Your task to perform on an android device: Check the weather Image 0: 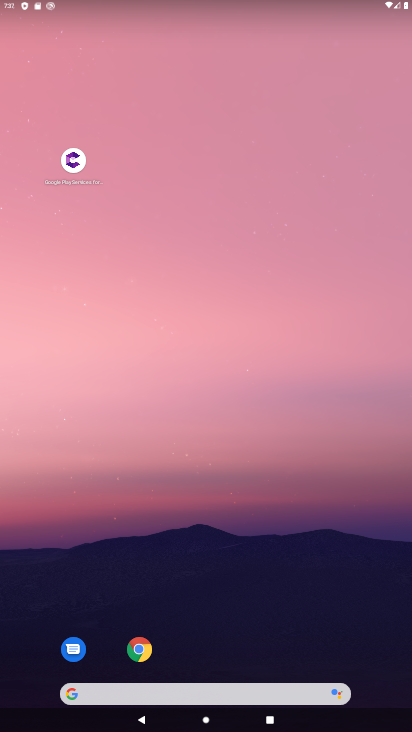
Step 0: click (194, 688)
Your task to perform on an android device: Check the weather Image 1: 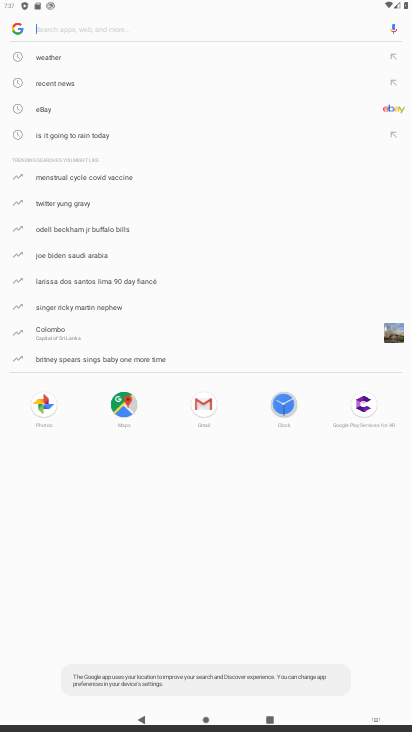
Step 1: click (132, 23)
Your task to perform on an android device: Check the weather Image 2: 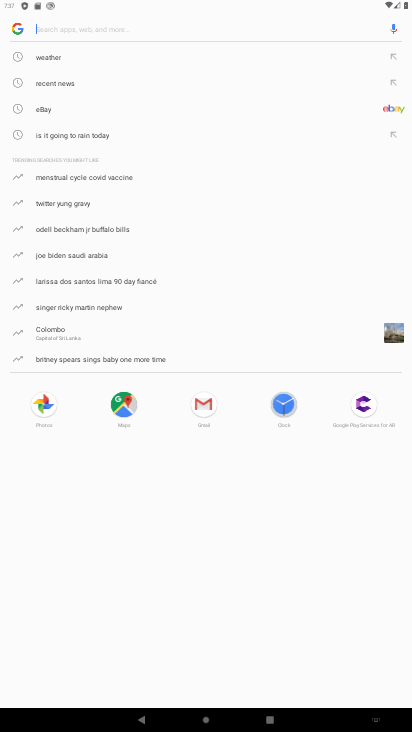
Step 2: type "weather"
Your task to perform on an android device: Check the weather Image 3: 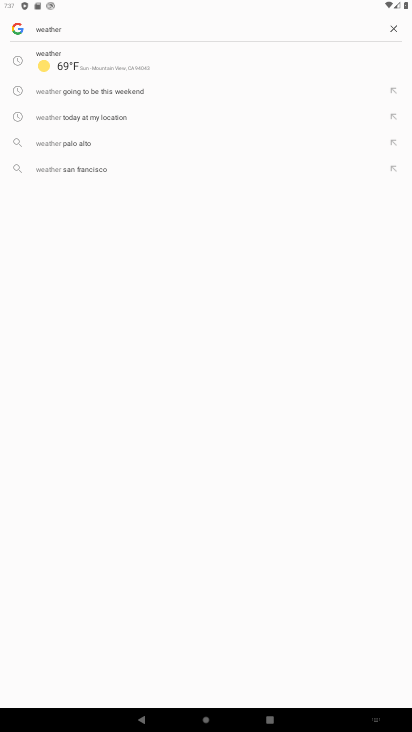
Step 3: click (71, 59)
Your task to perform on an android device: Check the weather Image 4: 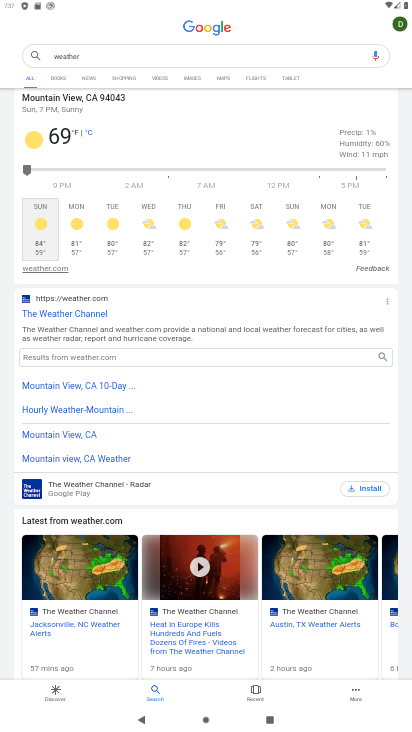
Step 4: task complete